Your task to perform on an android device: Open notification settings Image 0: 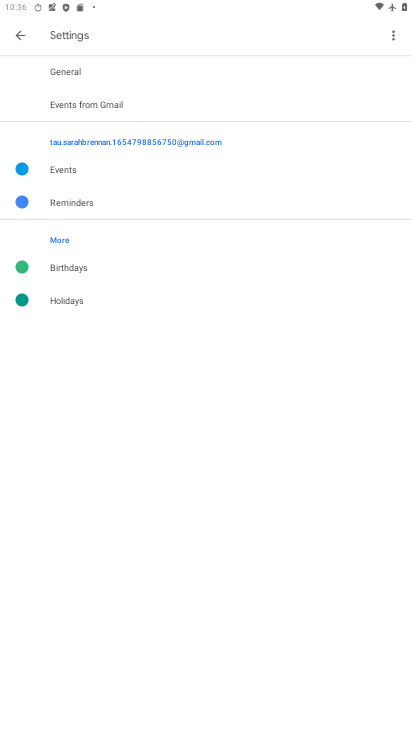
Step 0: press home button
Your task to perform on an android device: Open notification settings Image 1: 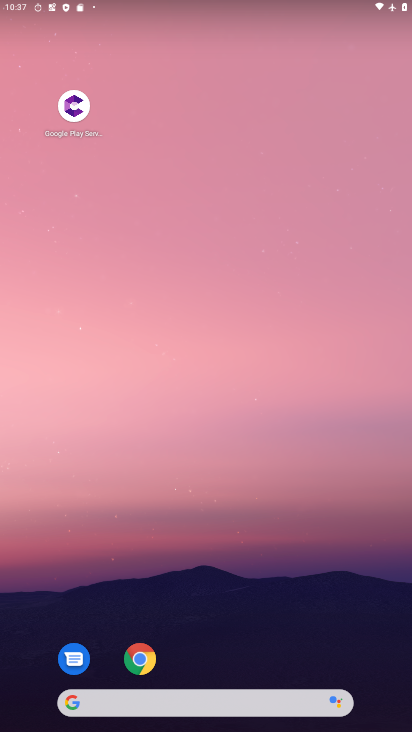
Step 1: click (218, 210)
Your task to perform on an android device: Open notification settings Image 2: 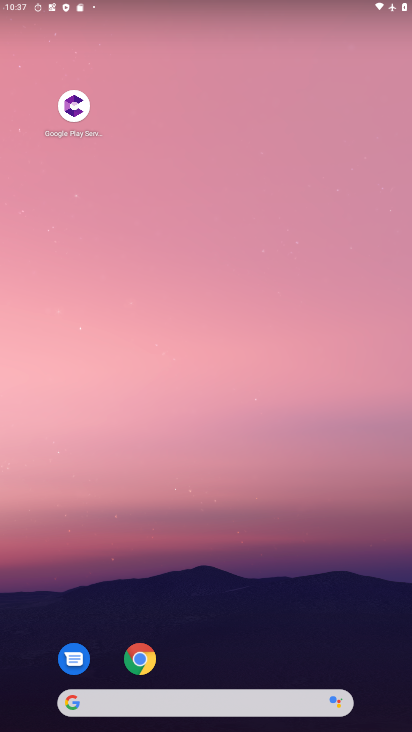
Step 2: drag from (284, 624) to (256, 106)
Your task to perform on an android device: Open notification settings Image 3: 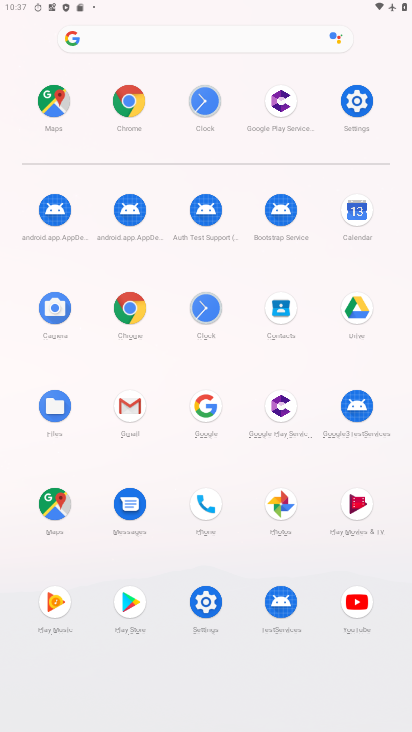
Step 3: click (356, 103)
Your task to perform on an android device: Open notification settings Image 4: 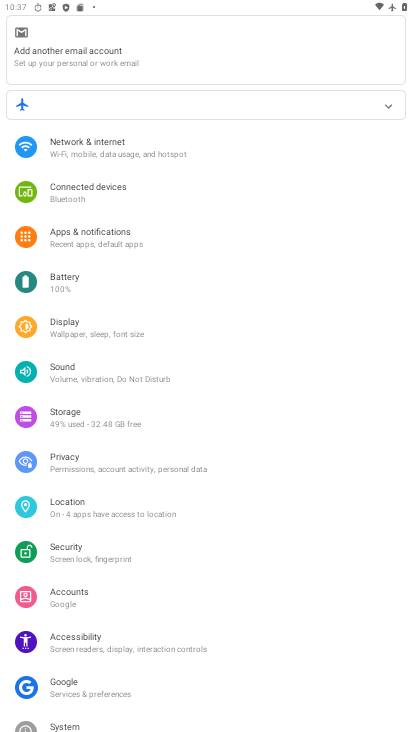
Step 4: click (98, 245)
Your task to perform on an android device: Open notification settings Image 5: 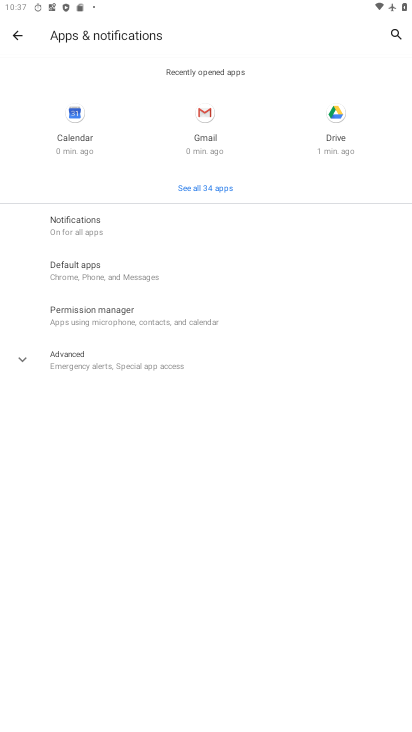
Step 5: click (97, 228)
Your task to perform on an android device: Open notification settings Image 6: 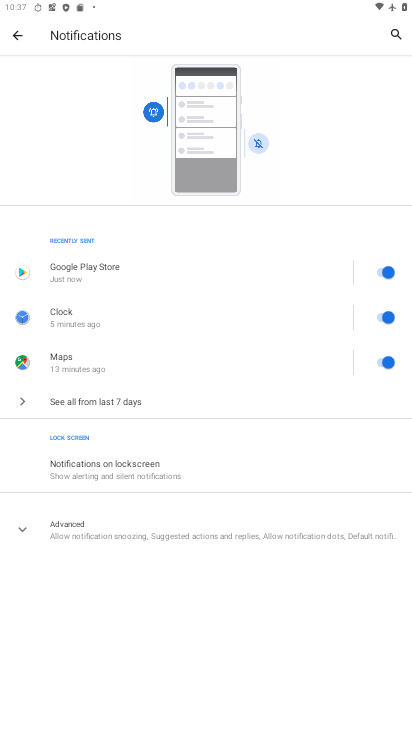
Step 6: task complete